Your task to perform on an android device: change the upload size in google photos Image 0: 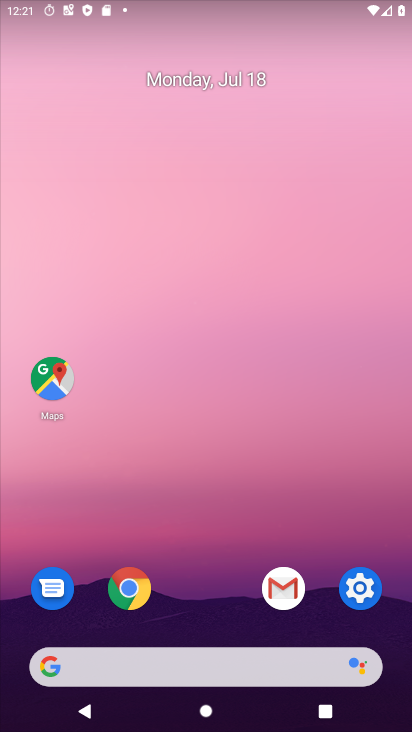
Step 0: drag from (310, 598) to (243, 120)
Your task to perform on an android device: change the upload size in google photos Image 1: 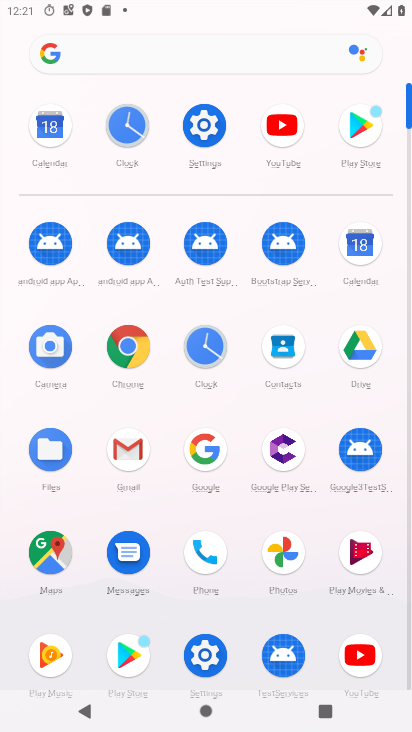
Step 1: click (287, 538)
Your task to perform on an android device: change the upload size in google photos Image 2: 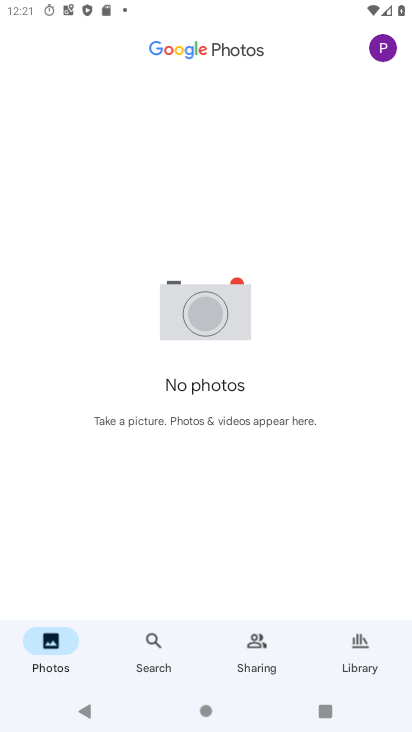
Step 2: click (384, 54)
Your task to perform on an android device: change the upload size in google photos Image 3: 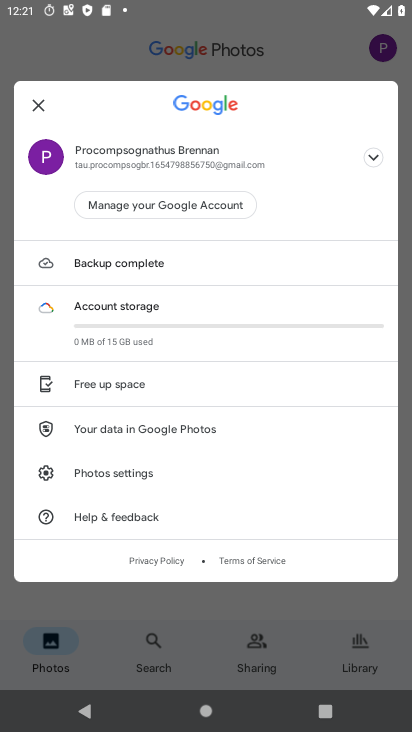
Step 3: click (146, 477)
Your task to perform on an android device: change the upload size in google photos Image 4: 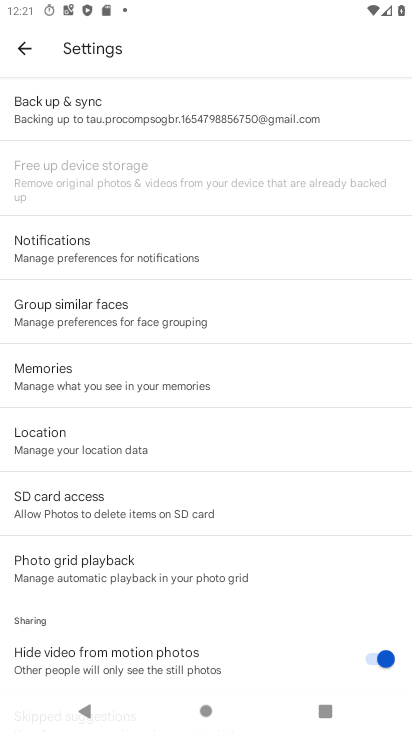
Step 4: click (94, 111)
Your task to perform on an android device: change the upload size in google photos Image 5: 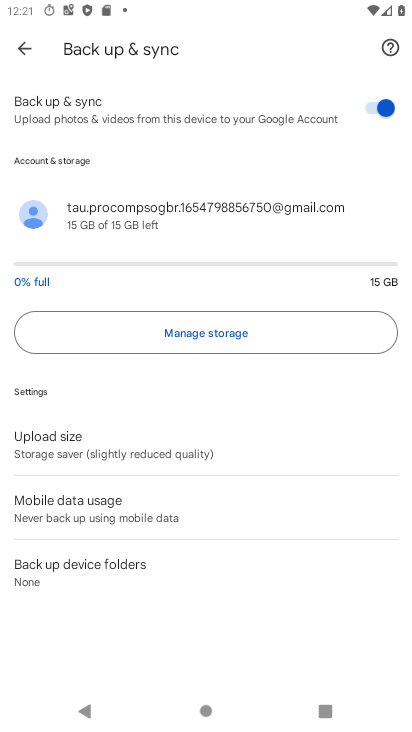
Step 5: click (67, 428)
Your task to perform on an android device: change the upload size in google photos Image 6: 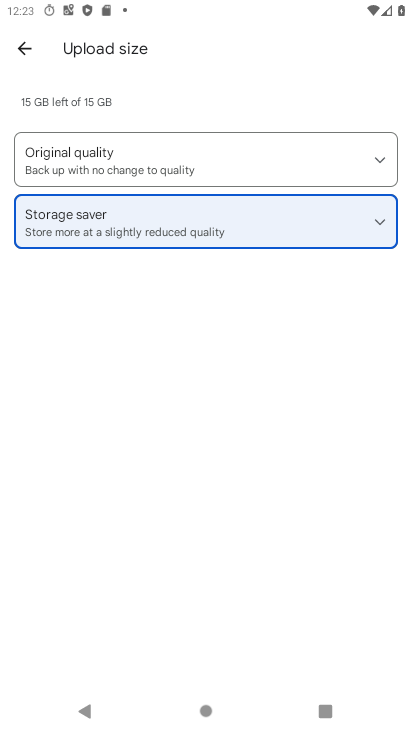
Step 6: task complete